Your task to perform on an android device: Go to display settings Image 0: 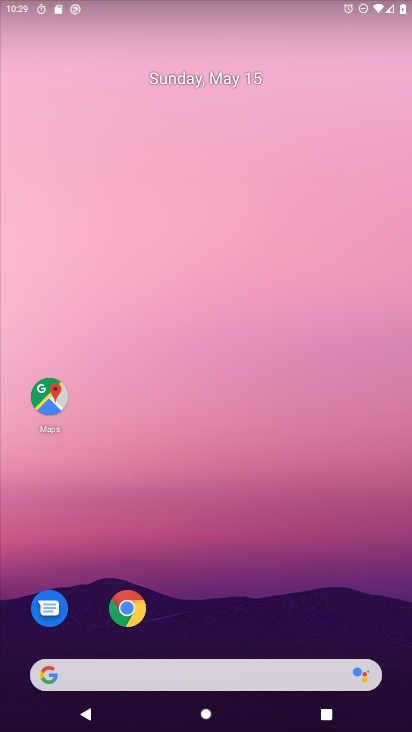
Step 0: drag from (257, 567) to (296, 158)
Your task to perform on an android device: Go to display settings Image 1: 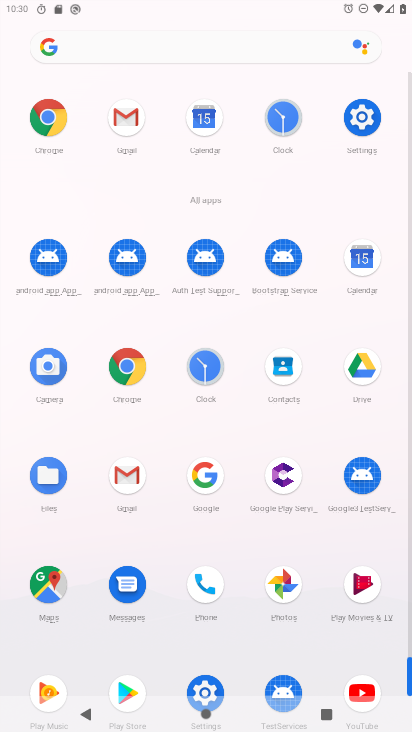
Step 1: click (369, 108)
Your task to perform on an android device: Go to display settings Image 2: 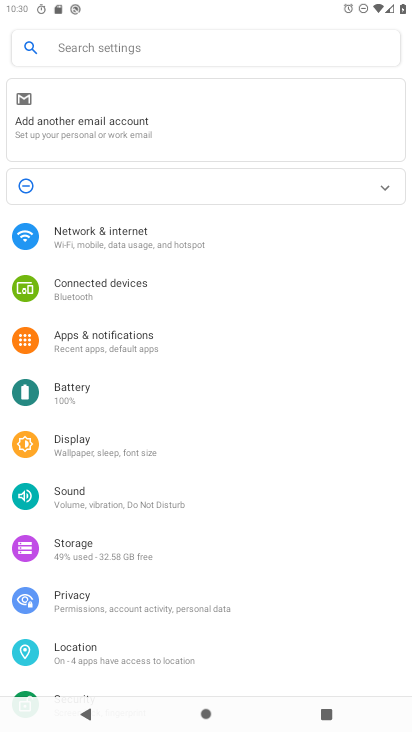
Step 2: drag from (240, 640) to (246, 361)
Your task to perform on an android device: Go to display settings Image 3: 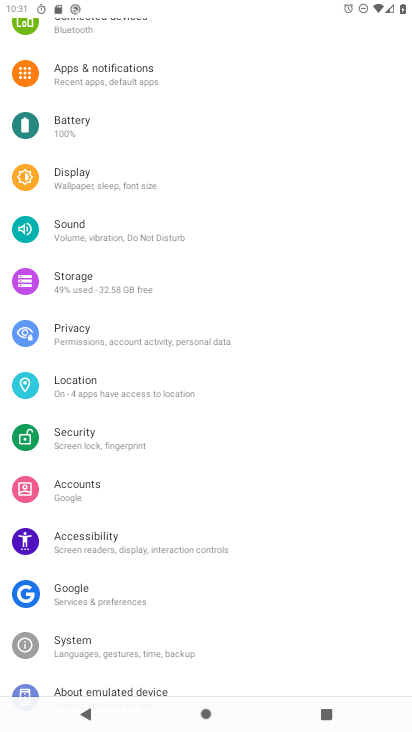
Step 3: drag from (192, 616) to (186, 416)
Your task to perform on an android device: Go to display settings Image 4: 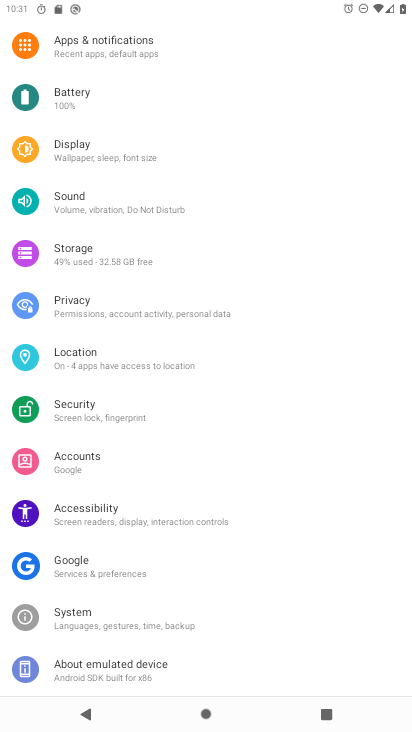
Step 4: click (67, 146)
Your task to perform on an android device: Go to display settings Image 5: 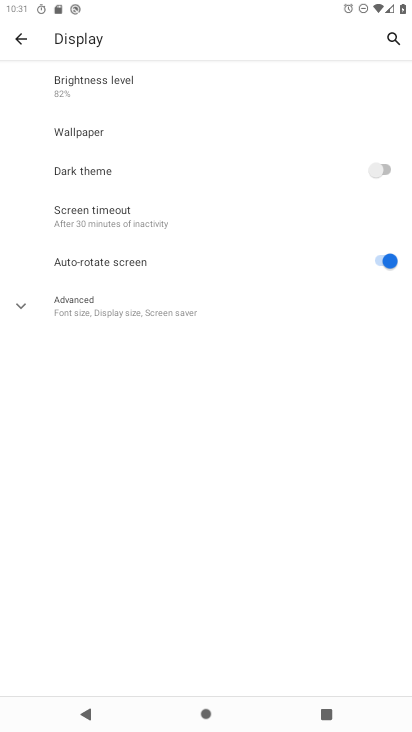
Step 5: task complete